Your task to perform on an android device: turn off airplane mode Image 0: 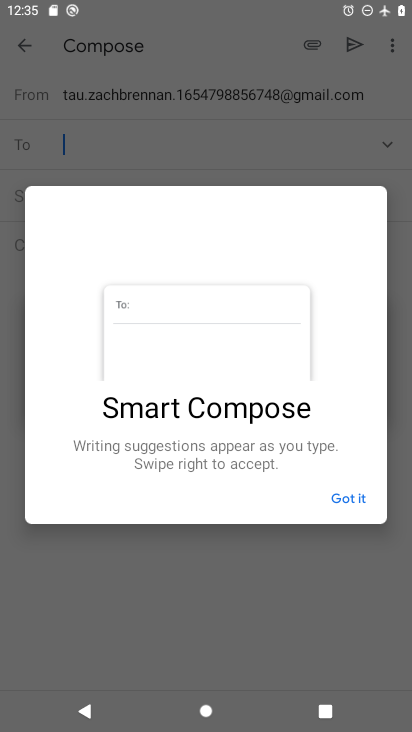
Step 0: press home button
Your task to perform on an android device: turn off airplane mode Image 1: 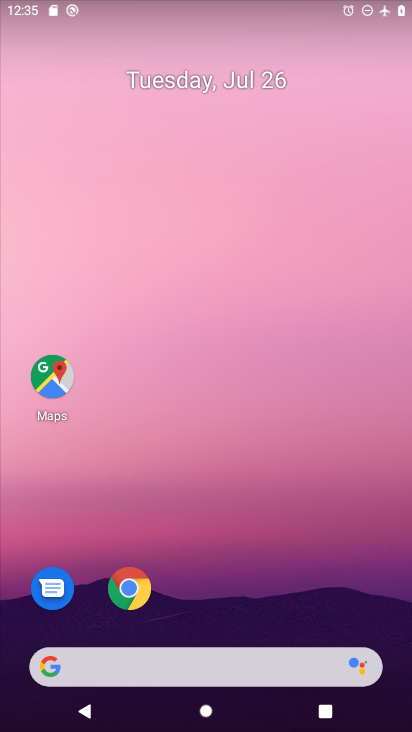
Step 1: drag from (249, 604) to (184, 0)
Your task to perform on an android device: turn off airplane mode Image 2: 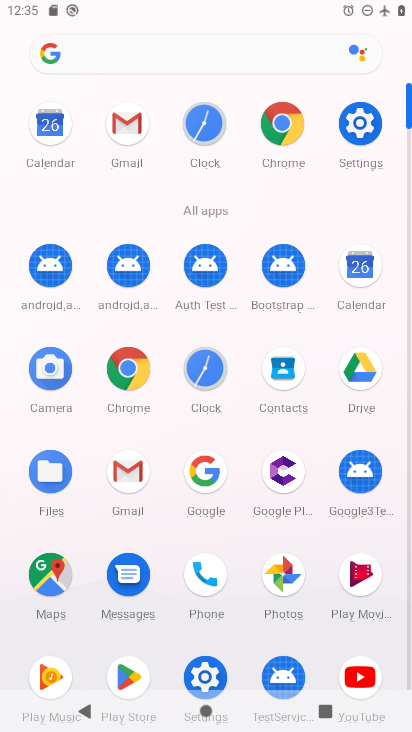
Step 2: click (361, 139)
Your task to perform on an android device: turn off airplane mode Image 3: 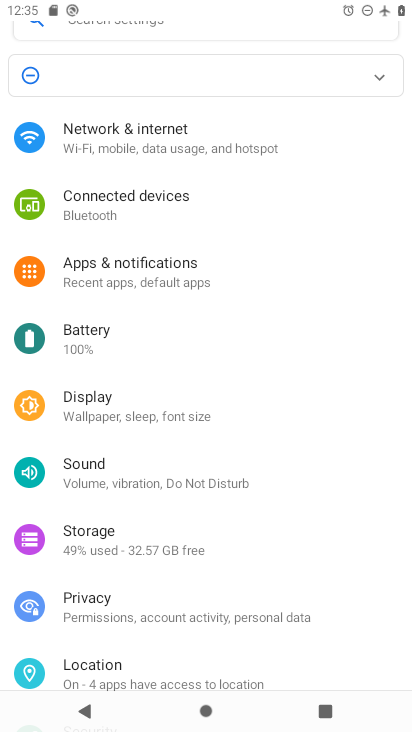
Step 3: click (239, 137)
Your task to perform on an android device: turn off airplane mode Image 4: 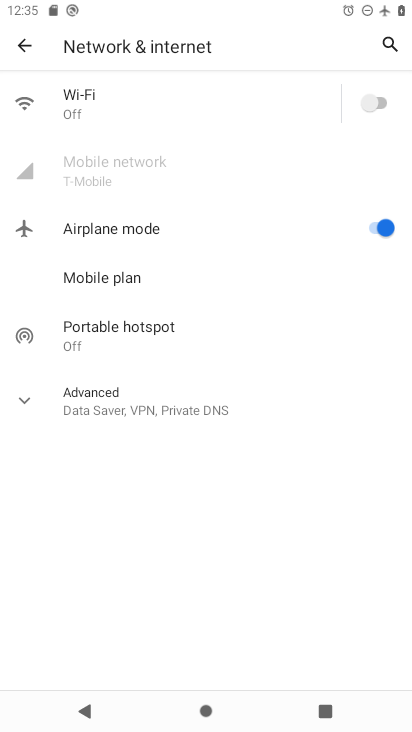
Step 4: click (374, 229)
Your task to perform on an android device: turn off airplane mode Image 5: 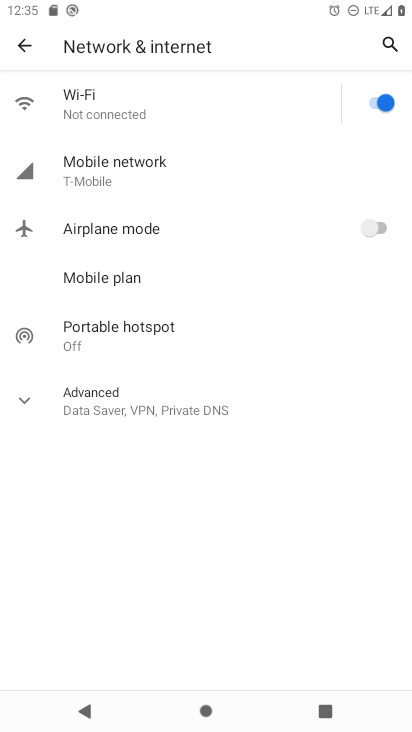
Step 5: task complete